Your task to perform on an android device: allow notifications from all sites in the chrome app Image 0: 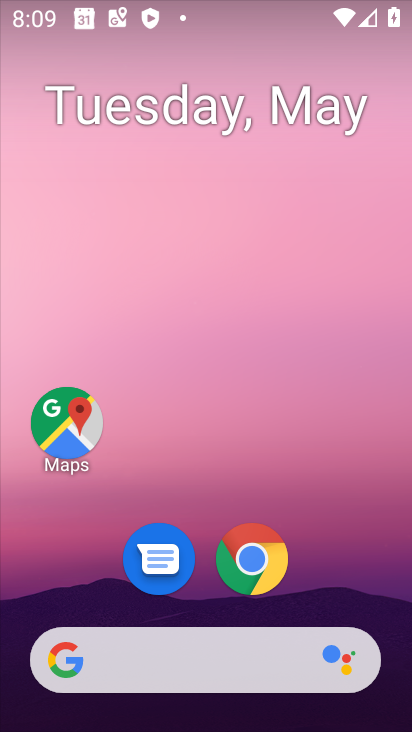
Step 0: drag from (351, 582) to (198, 59)
Your task to perform on an android device: allow notifications from all sites in the chrome app Image 1: 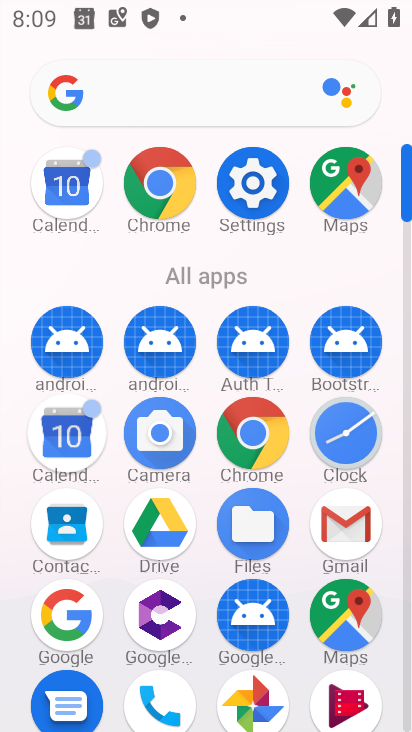
Step 1: click (148, 183)
Your task to perform on an android device: allow notifications from all sites in the chrome app Image 2: 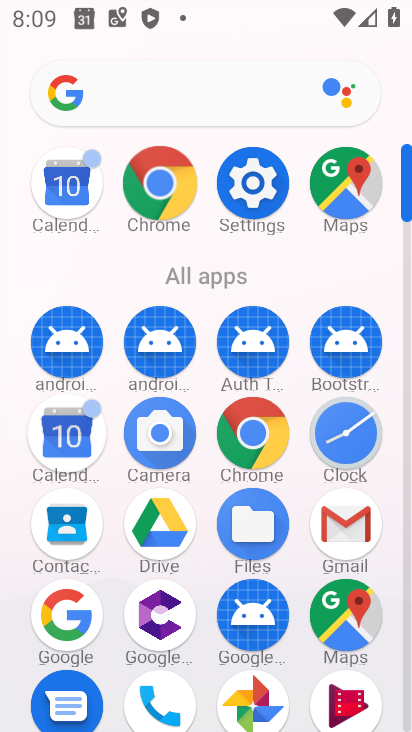
Step 2: click (154, 178)
Your task to perform on an android device: allow notifications from all sites in the chrome app Image 3: 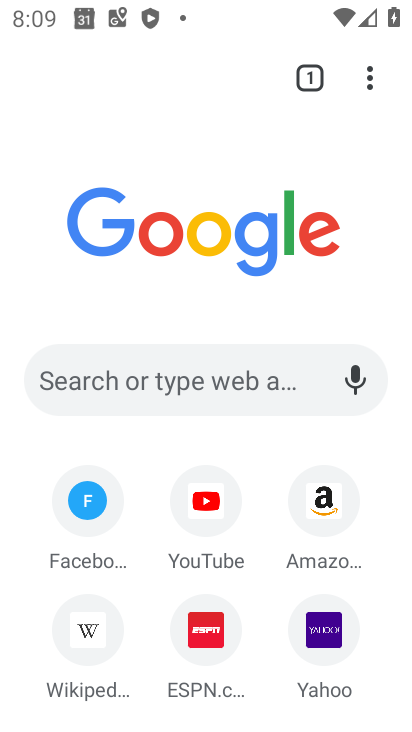
Step 3: click (371, 77)
Your task to perform on an android device: allow notifications from all sites in the chrome app Image 4: 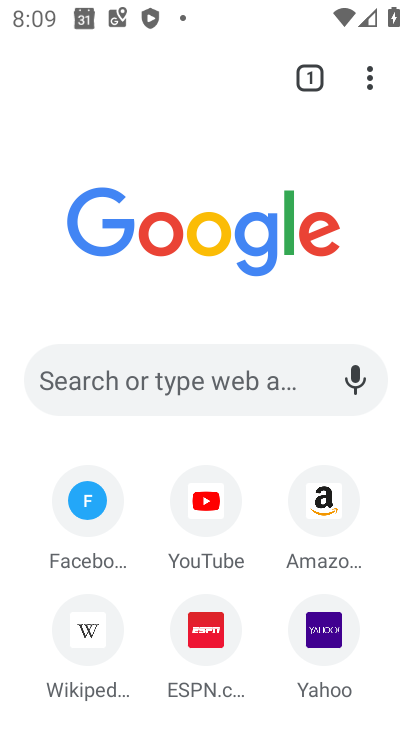
Step 4: click (371, 77)
Your task to perform on an android device: allow notifications from all sites in the chrome app Image 5: 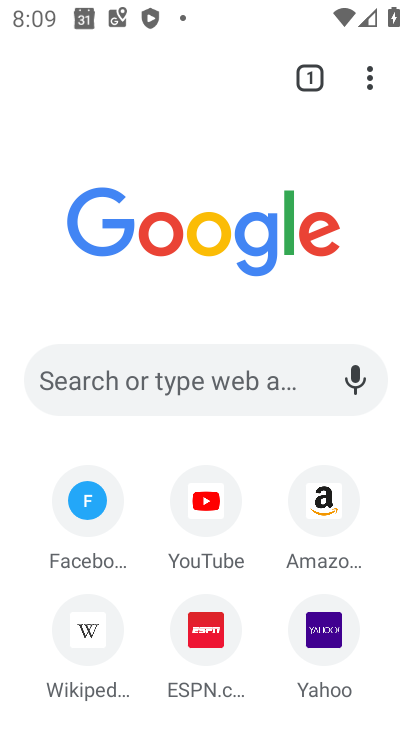
Step 5: drag from (372, 79) to (87, 617)
Your task to perform on an android device: allow notifications from all sites in the chrome app Image 6: 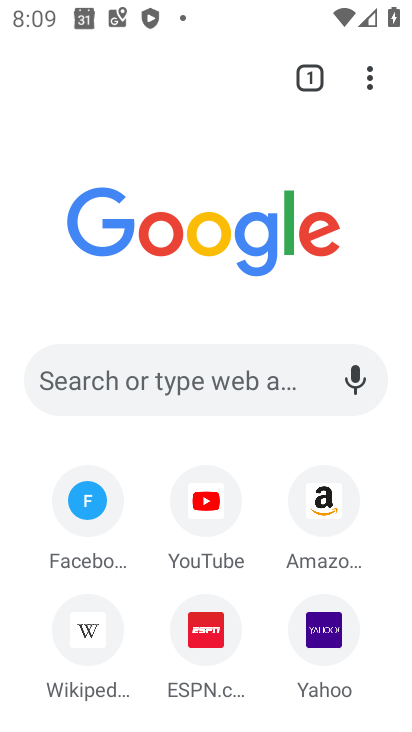
Step 6: click (79, 605)
Your task to perform on an android device: allow notifications from all sites in the chrome app Image 7: 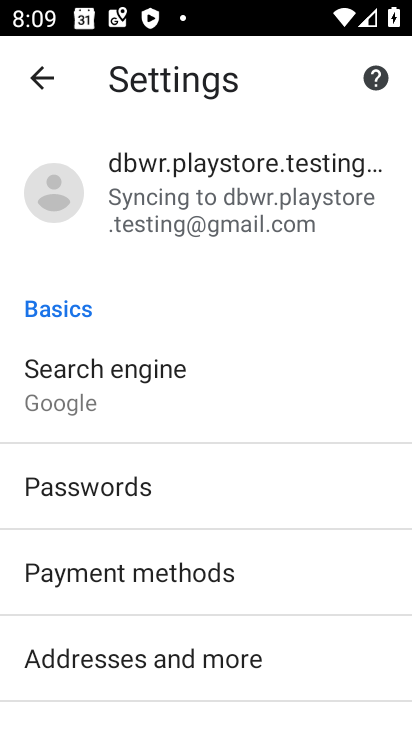
Step 7: drag from (150, 621) to (163, 223)
Your task to perform on an android device: allow notifications from all sites in the chrome app Image 8: 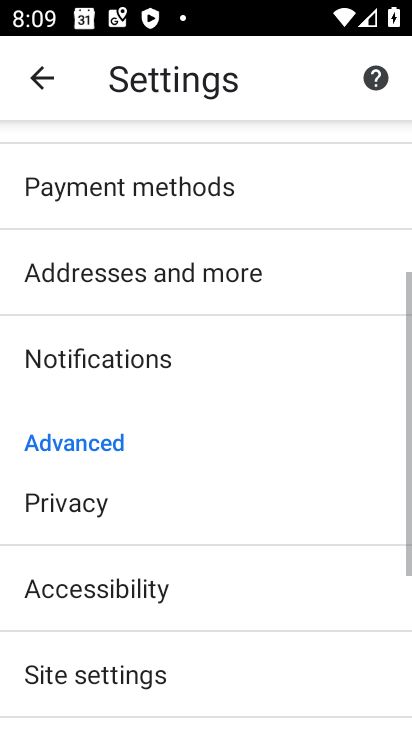
Step 8: drag from (172, 528) to (196, 125)
Your task to perform on an android device: allow notifications from all sites in the chrome app Image 9: 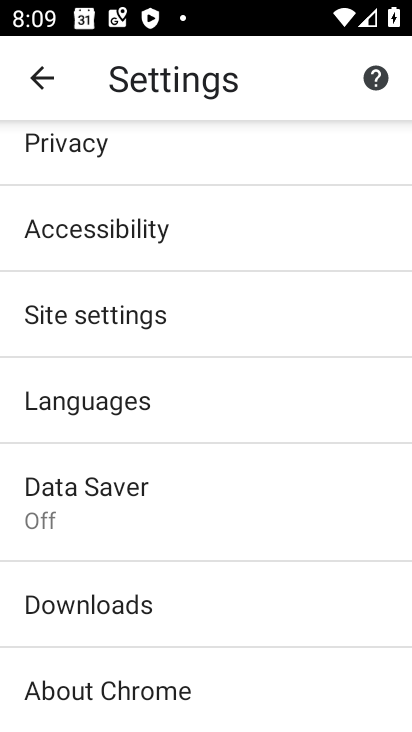
Step 9: click (79, 320)
Your task to perform on an android device: allow notifications from all sites in the chrome app Image 10: 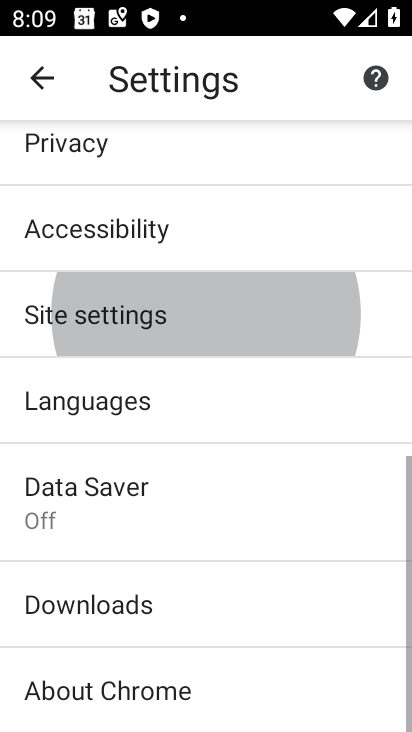
Step 10: click (79, 319)
Your task to perform on an android device: allow notifications from all sites in the chrome app Image 11: 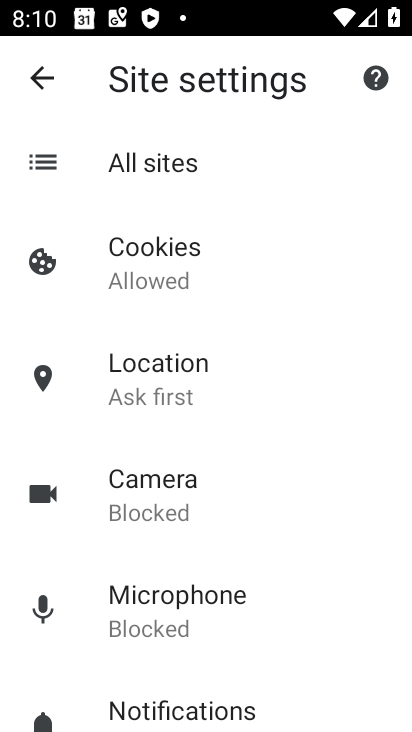
Step 11: click (162, 164)
Your task to perform on an android device: allow notifications from all sites in the chrome app Image 12: 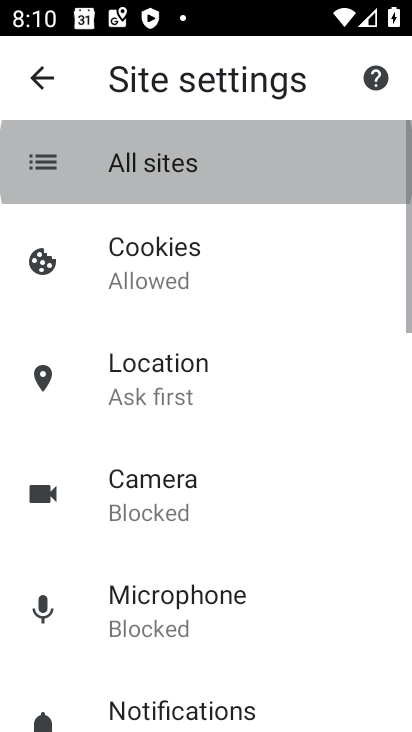
Step 12: click (164, 166)
Your task to perform on an android device: allow notifications from all sites in the chrome app Image 13: 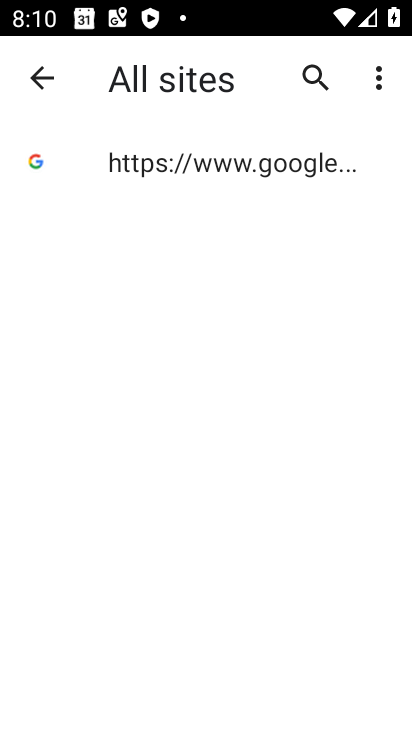
Step 13: click (166, 170)
Your task to perform on an android device: allow notifications from all sites in the chrome app Image 14: 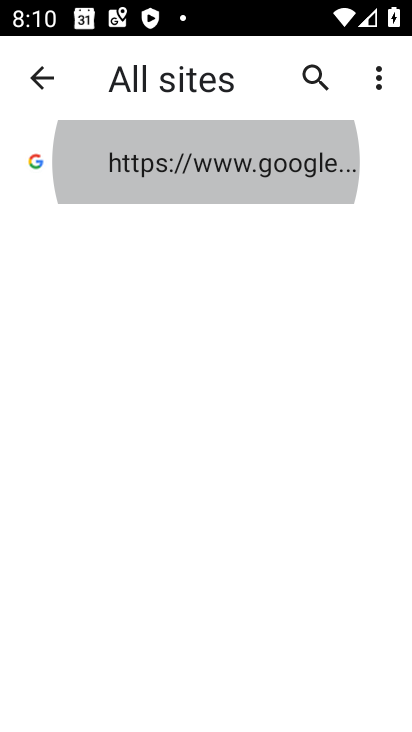
Step 14: click (169, 170)
Your task to perform on an android device: allow notifications from all sites in the chrome app Image 15: 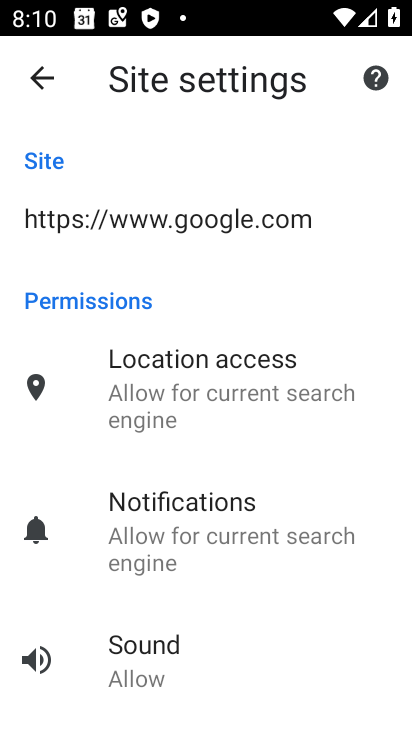
Step 15: click (174, 504)
Your task to perform on an android device: allow notifications from all sites in the chrome app Image 16: 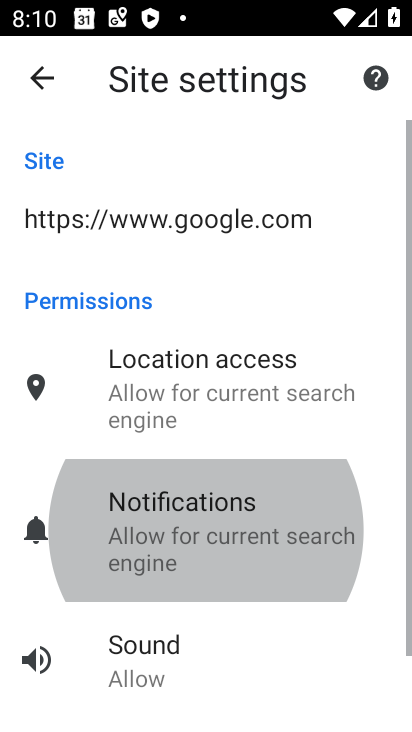
Step 16: click (177, 505)
Your task to perform on an android device: allow notifications from all sites in the chrome app Image 17: 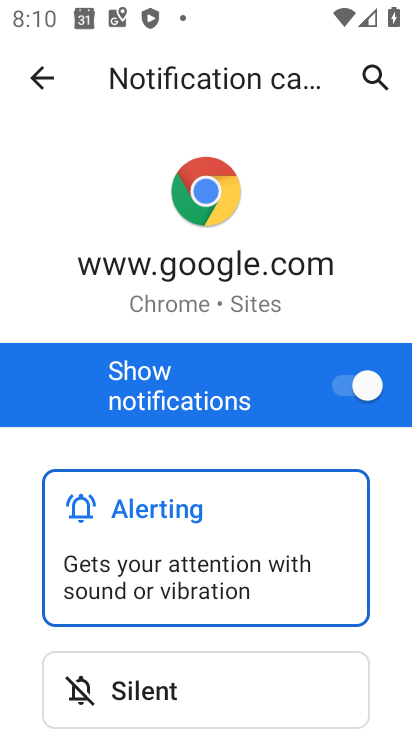
Step 17: task complete